Your task to perform on an android device: Set the phone to "Do not disturb". Image 0: 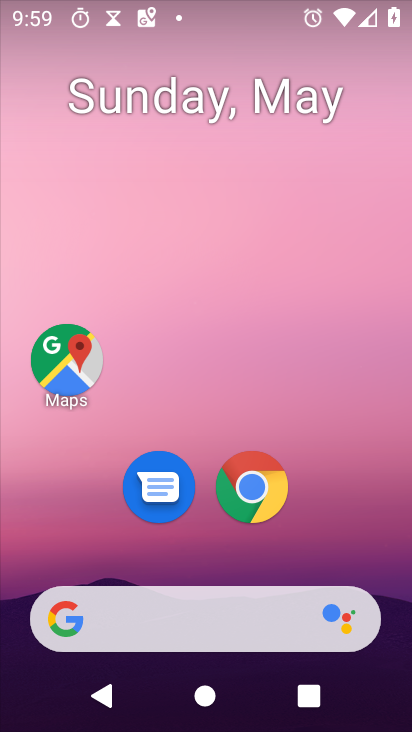
Step 0: drag from (354, 532) to (365, 9)
Your task to perform on an android device: Set the phone to "Do not disturb". Image 1: 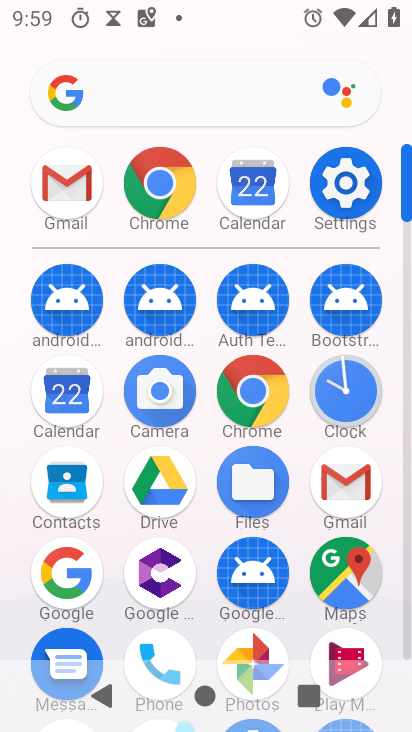
Step 1: click (344, 211)
Your task to perform on an android device: Set the phone to "Do not disturb". Image 2: 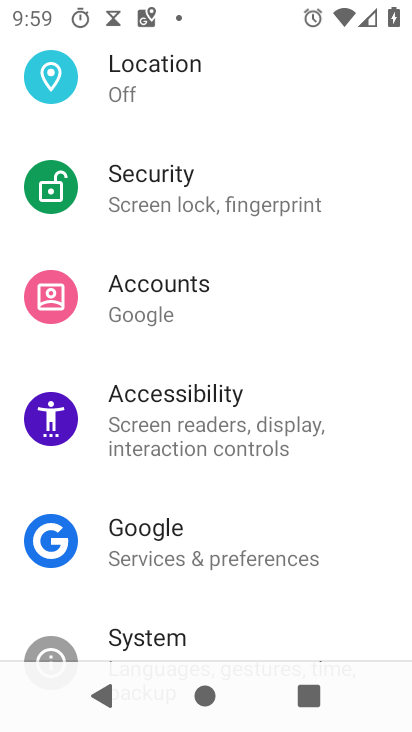
Step 2: drag from (216, 513) to (250, 237)
Your task to perform on an android device: Set the phone to "Do not disturb". Image 3: 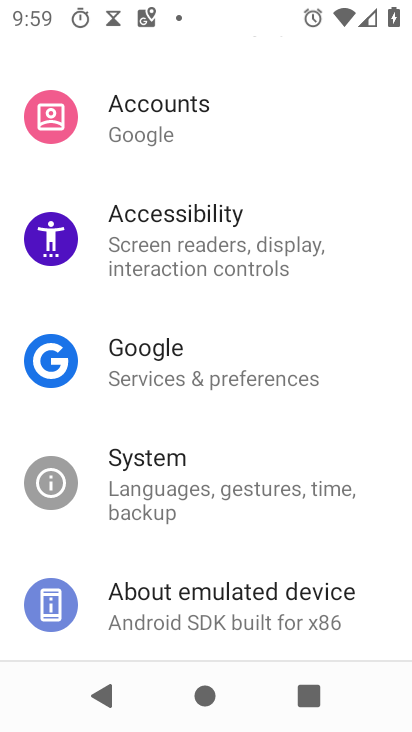
Step 3: drag from (265, 155) to (237, 526)
Your task to perform on an android device: Set the phone to "Do not disturb". Image 4: 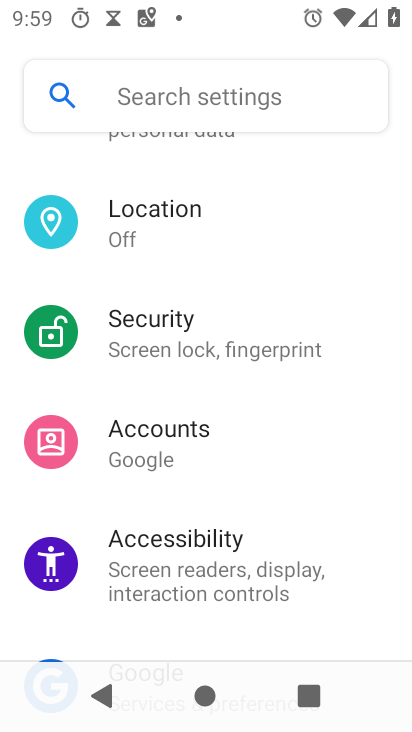
Step 4: drag from (266, 177) to (285, 559)
Your task to perform on an android device: Set the phone to "Do not disturb". Image 5: 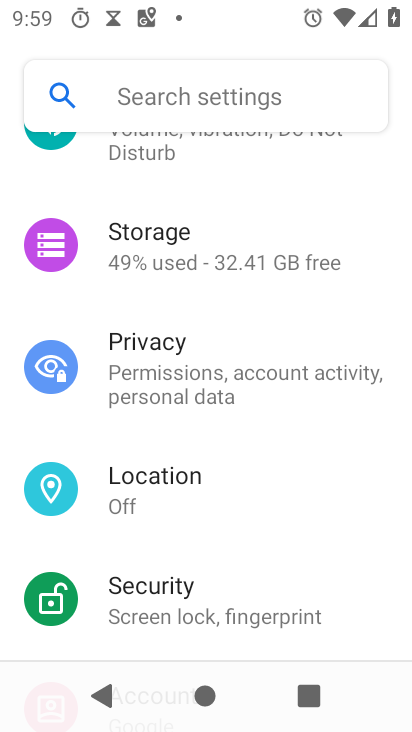
Step 5: drag from (273, 248) to (274, 560)
Your task to perform on an android device: Set the phone to "Do not disturb". Image 6: 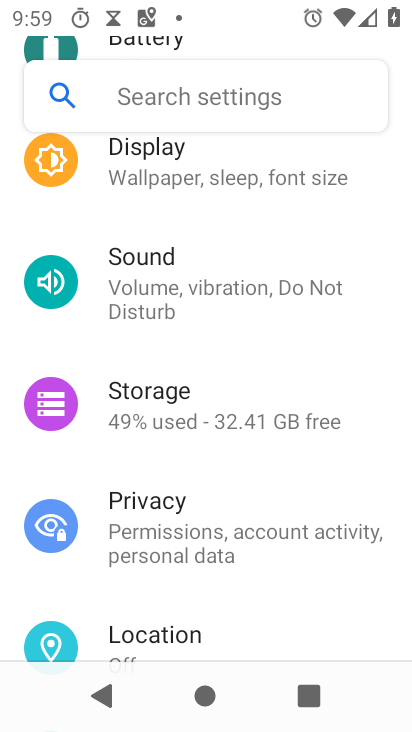
Step 6: click (184, 278)
Your task to perform on an android device: Set the phone to "Do not disturb". Image 7: 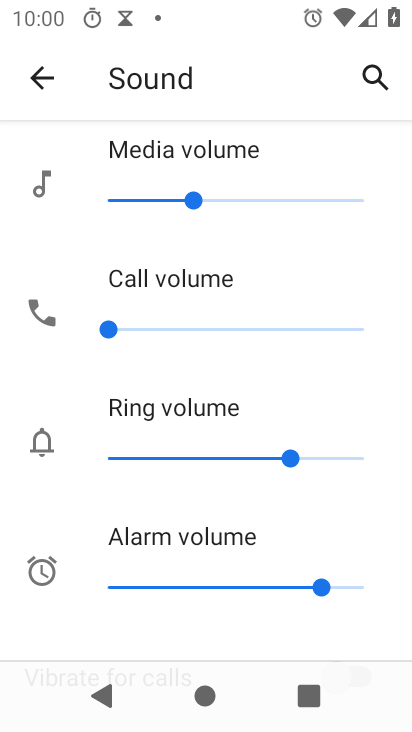
Step 7: task complete